Your task to perform on an android device: Check the news Image 0: 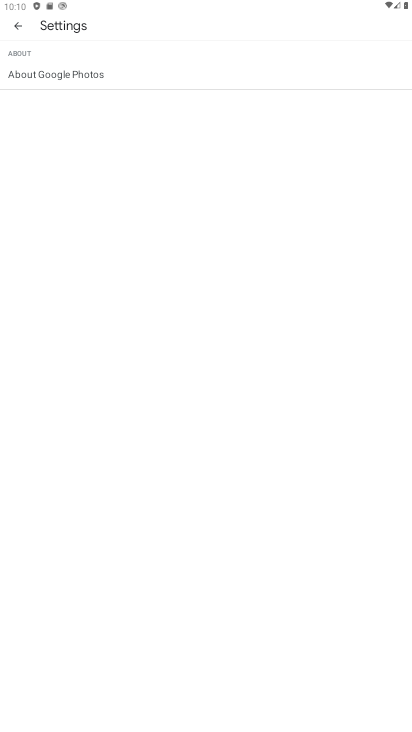
Step 0: press back button
Your task to perform on an android device: Check the news Image 1: 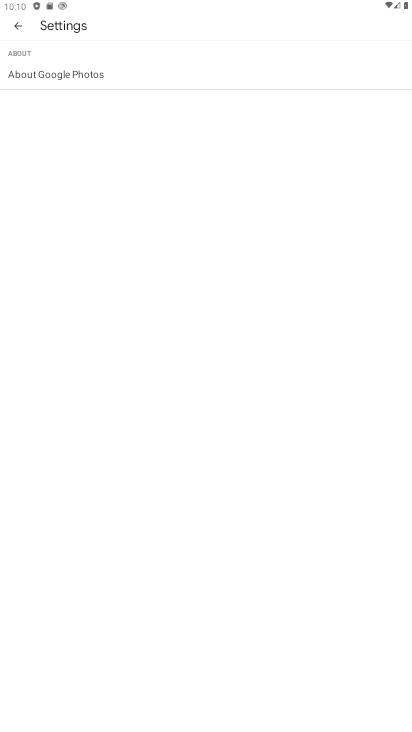
Step 1: press back button
Your task to perform on an android device: Check the news Image 2: 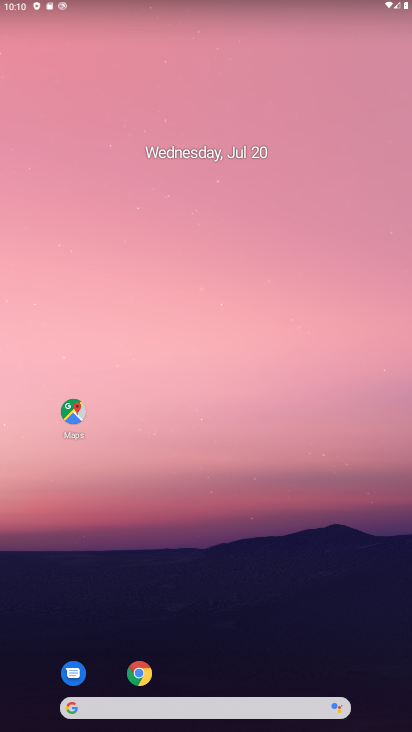
Step 2: drag from (232, 612) to (143, 143)
Your task to perform on an android device: Check the news Image 3: 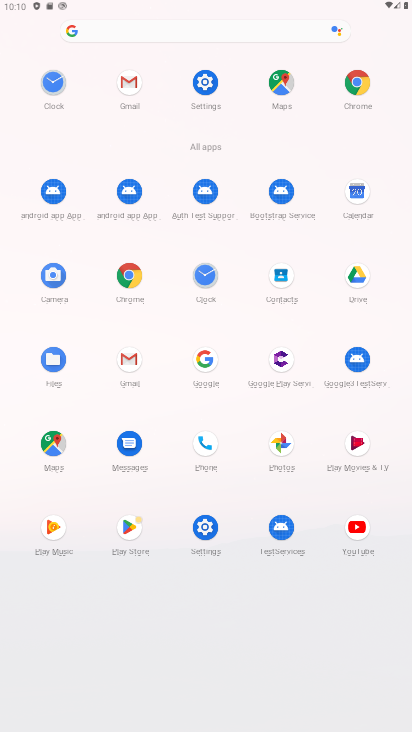
Step 3: click (127, 281)
Your task to perform on an android device: Check the news Image 4: 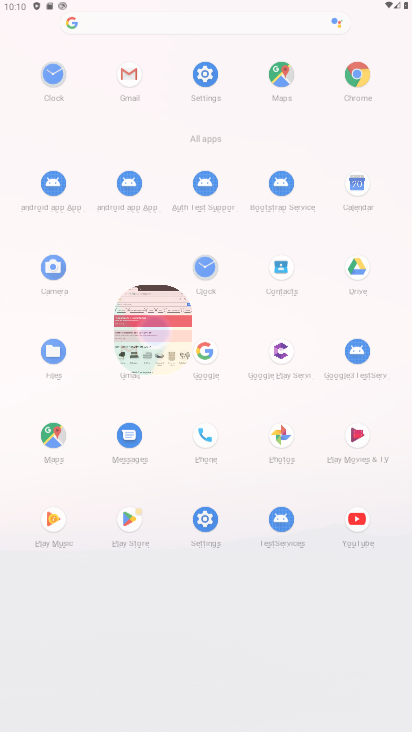
Step 4: click (127, 284)
Your task to perform on an android device: Check the news Image 5: 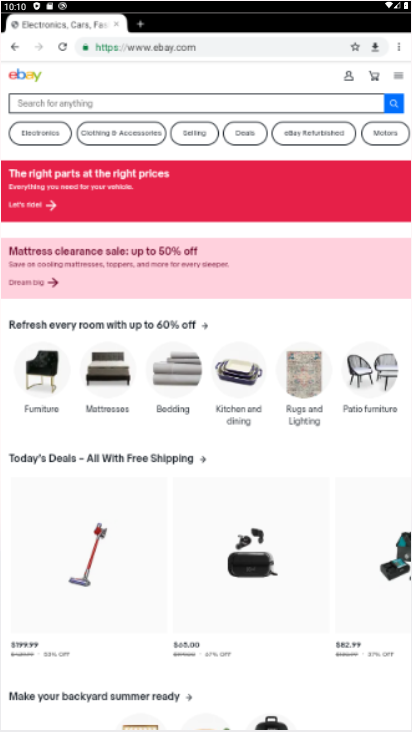
Step 5: click (130, 287)
Your task to perform on an android device: Check the news Image 6: 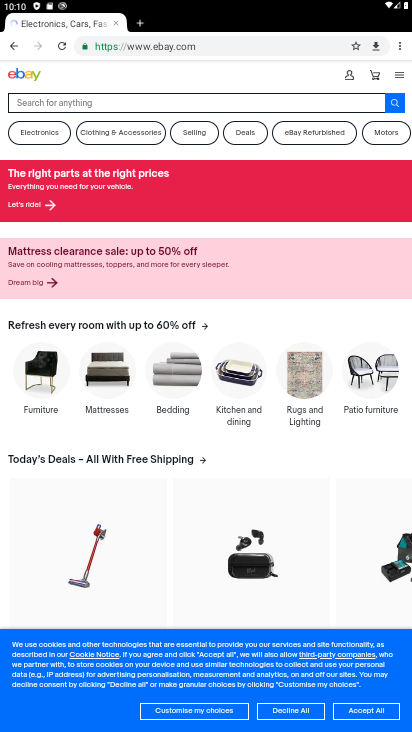
Step 6: drag from (396, 43) to (300, 41)
Your task to perform on an android device: Check the news Image 7: 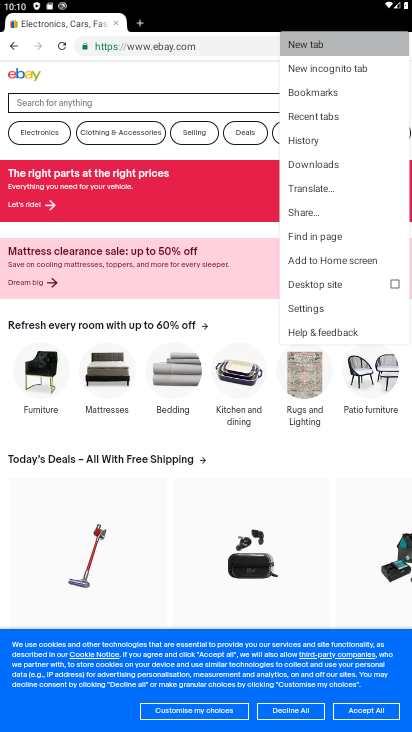
Step 7: click (304, 43)
Your task to perform on an android device: Check the news Image 8: 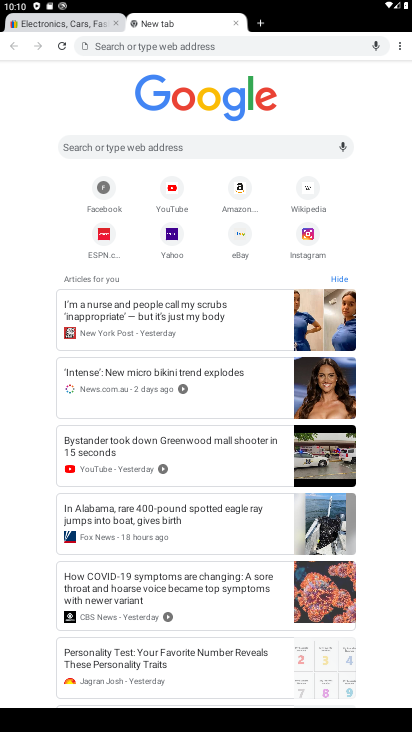
Step 8: task complete